Your task to perform on an android device: Open the calendar and show me this week's events? Image 0: 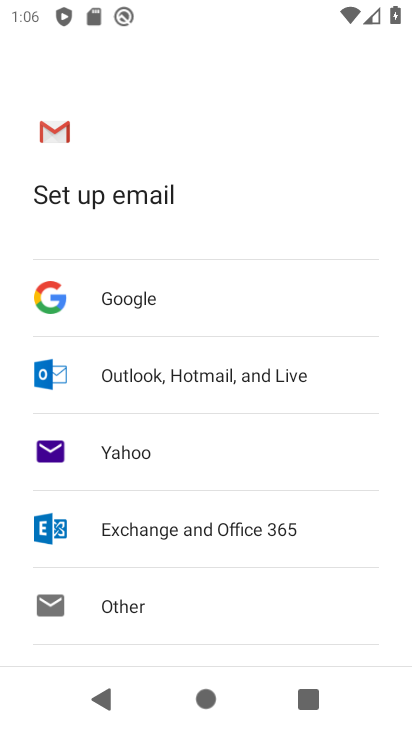
Step 0: press home button
Your task to perform on an android device: Open the calendar and show me this week's events? Image 1: 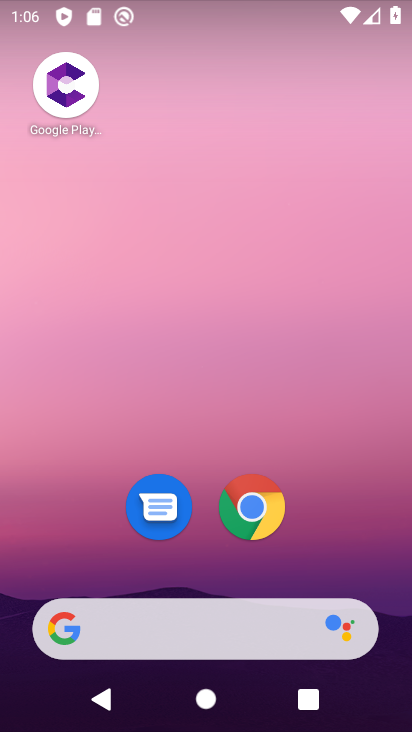
Step 1: drag from (397, 603) to (318, 50)
Your task to perform on an android device: Open the calendar and show me this week's events? Image 2: 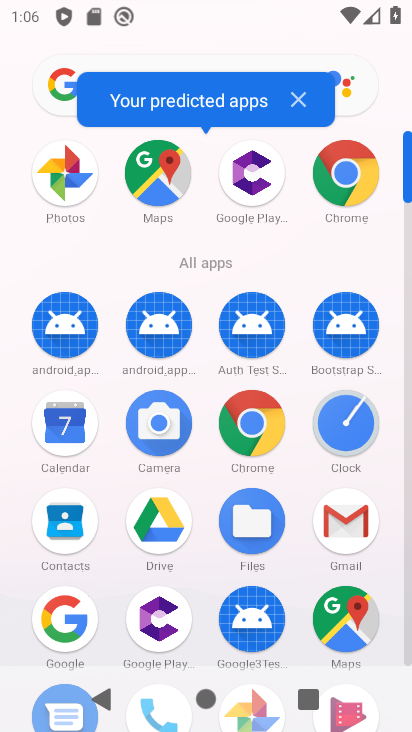
Step 2: click (65, 425)
Your task to perform on an android device: Open the calendar and show me this week's events? Image 3: 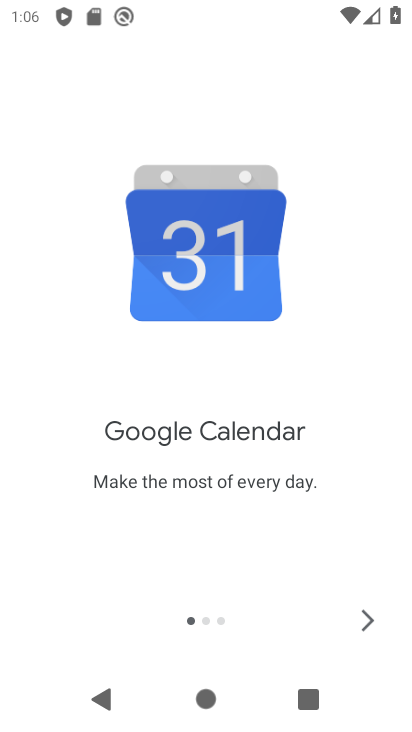
Step 3: click (363, 618)
Your task to perform on an android device: Open the calendar and show me this week's events? Image 4: 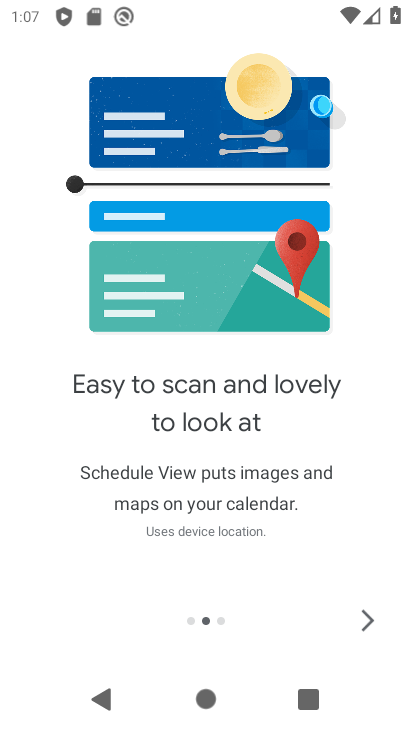
Step 4: click (367, 617)
Your task to perform on an android device: Open the calendar and show me this week's events? Image 5: 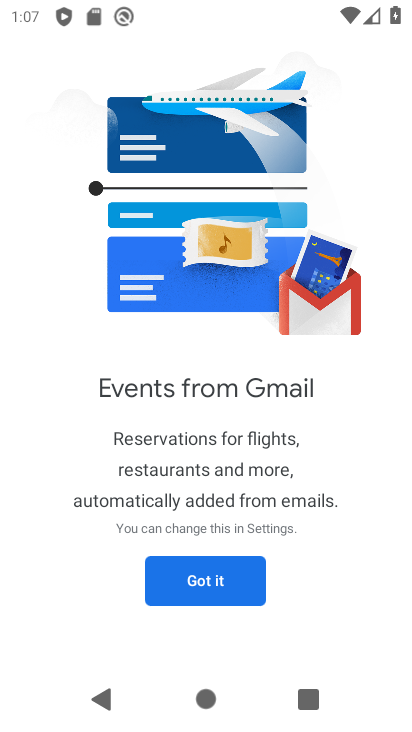
Step 5: click (201, 578)
Your task to perform on an android device: Open the calendar and show me this week's events? Image 6: 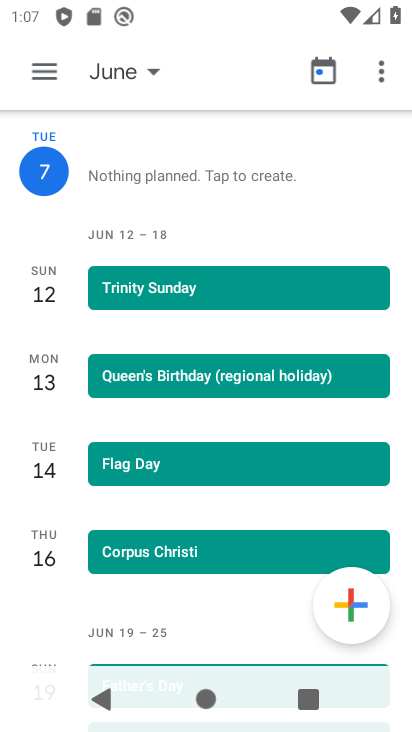
Step 6: click (46, 59)
Your task to perform on an android device: Open the calendar and show me this week's events? Image 7: 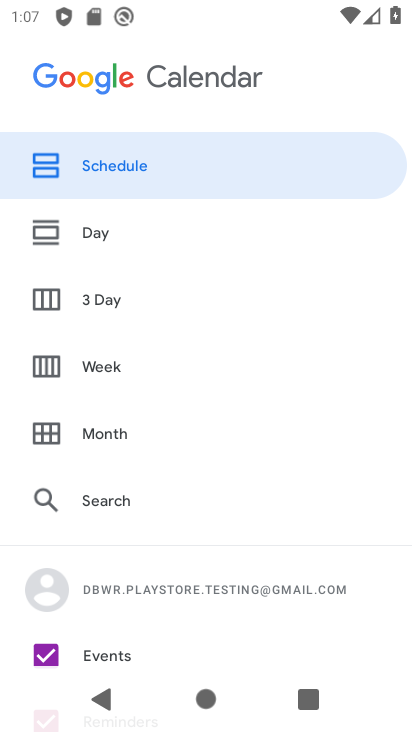
Step 7: click (95, 368)
Your task to perform on an android device: Open the calendar and show me this week's events? Image 8: 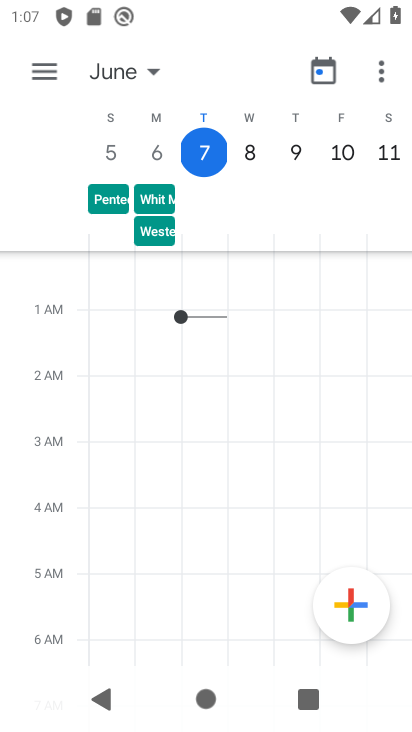
Step 8: task complete